Your task to perform on an android device: Open Yahoo.com Image 0: 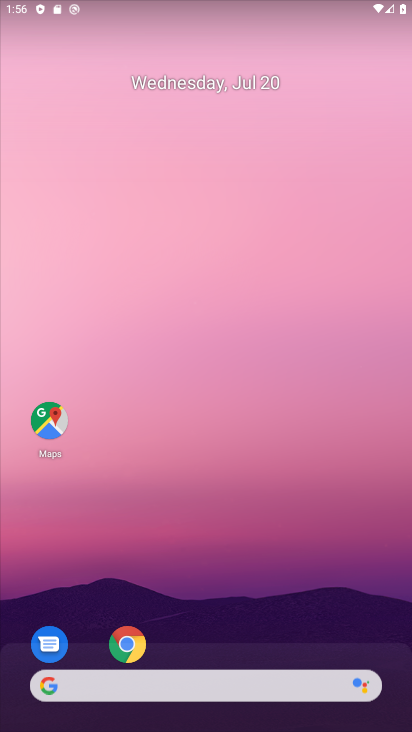
Step 0: click (127, 641)
Your task to perform on an android device: Open Yahoo.com Image 1: 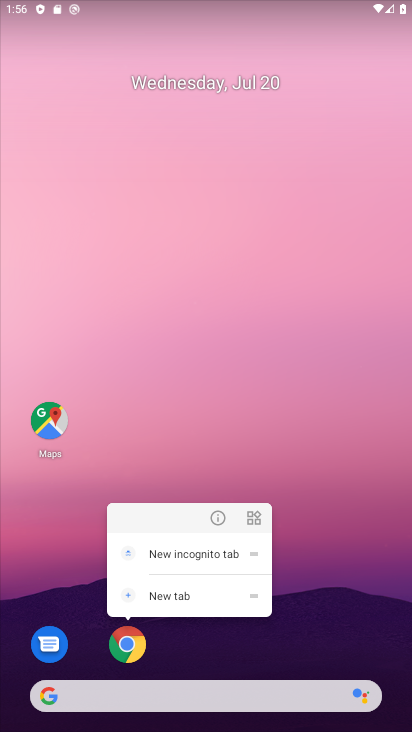
Step 1: click (106, 650)
Your task to perform on an android device: Open Yahoo.com Image 2: 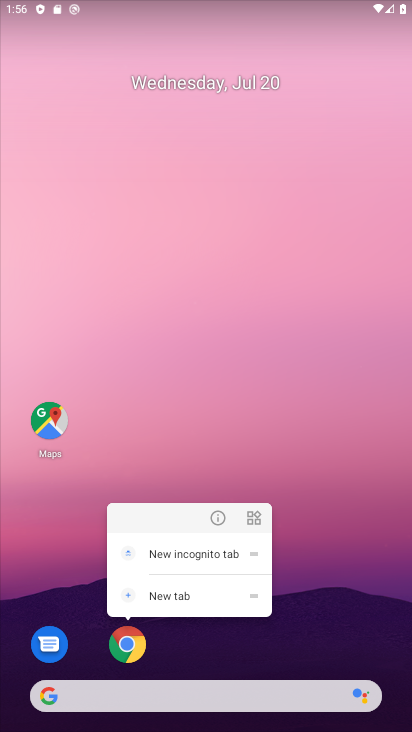
Step 2: click (125, 640)
Your task to perform on an android device: Open Yahoo.com Image 3: 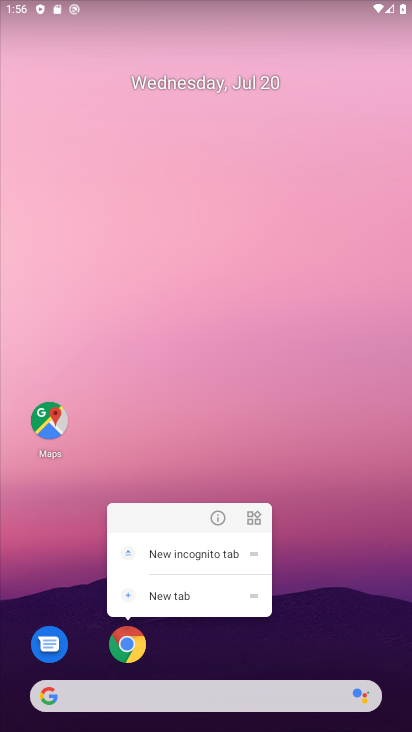
Step 3: click (127, 642)
Your task to perform on an android device: Open Yahoo.com Image 4: 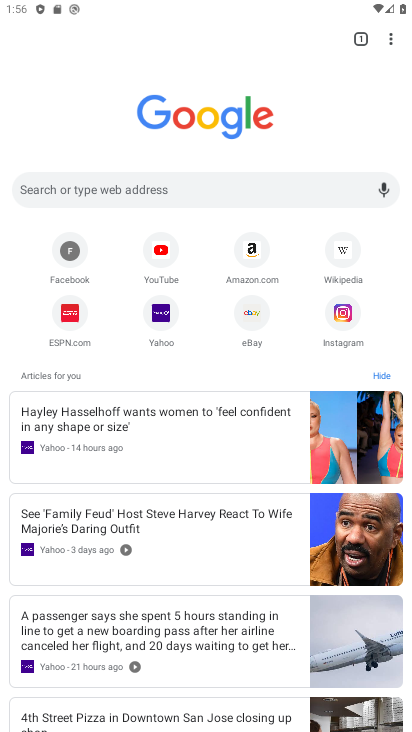
Step 4: click (158, 322)
Your task to perform on an android device: Open Yahoo.com Image 5: 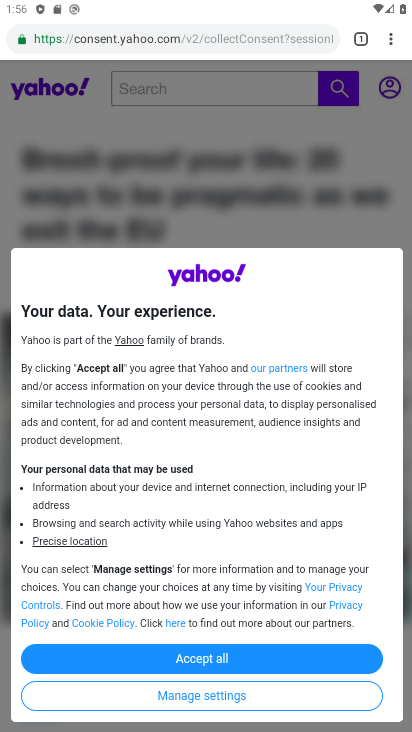
Step 5: task complete